Your task to perform on an android device: toggle improve location accuracy Image 0: 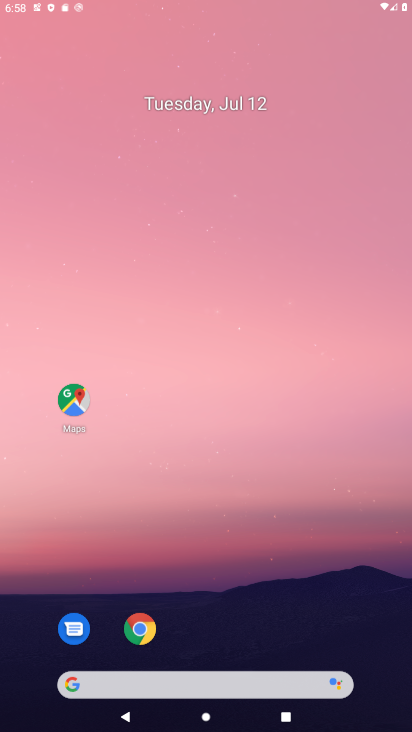
Step 0: drag from (274, 562) to (256, 185)
Your task to perform on an android device: toggle improve location accuracy Image 1: 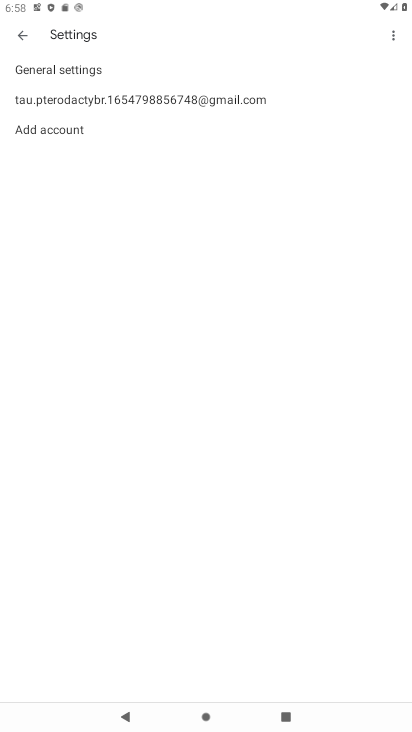
Step 1: press home button
Your task to perform on an android device: toggle improve location accuracy Image 2: 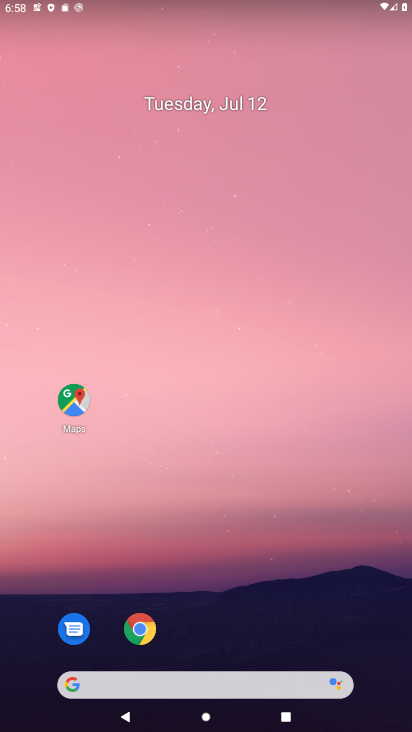
Step 2: drag from (247, 673) to (203, 101)
Your task to perform on an android device: toggle improve location accuracy Image 3: 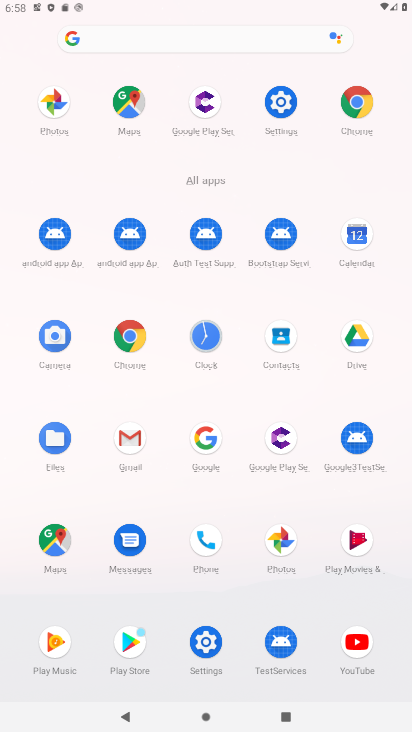
Step 3: click (285, 97)
Your task to perform on an android device: toggle improve location accuracy Image 4: 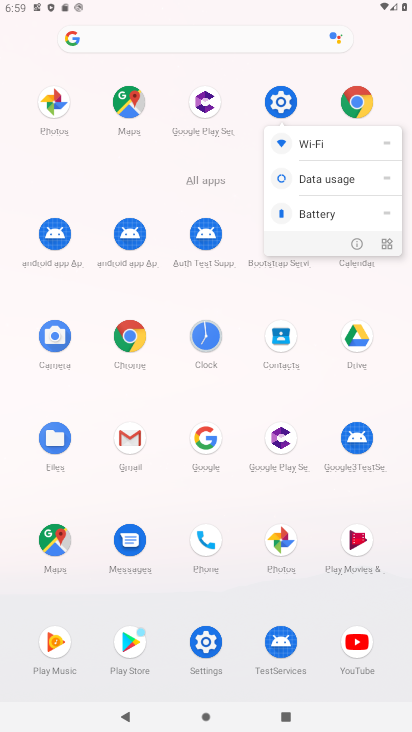
Step 4: click (263, 114)
Your task to perform on an android device: toggle improve location accuracy Image 5: 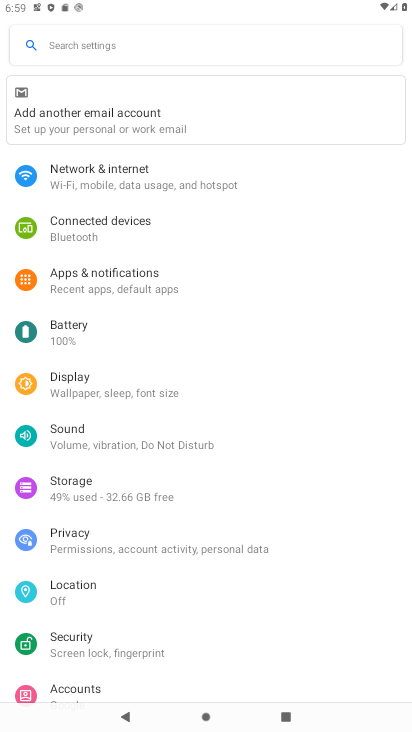
Step 5: click (98, 599)
Your task to perform on an android device: toggle improve location accuracy Image 6: 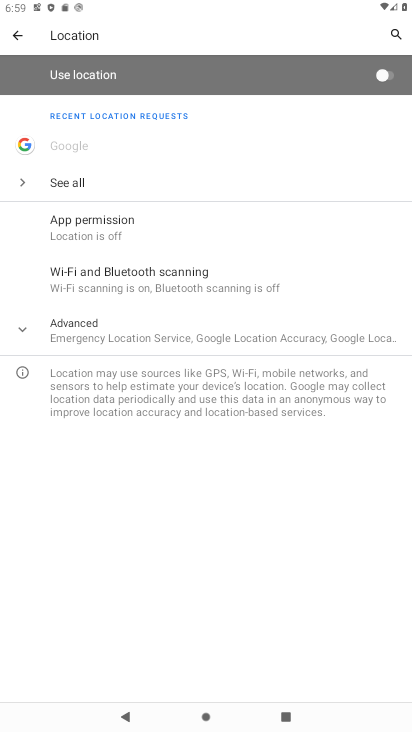
Step 6: click (66, 334)
Your task to perform on an android device: toggle improve location accuracy Image 7: 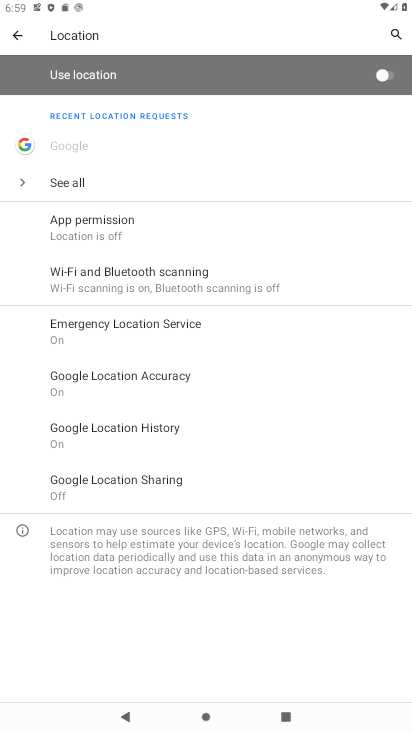
Step 7: click (118, 387)
Your task to perform on an android device: toggle improve location accuracy Image 8: 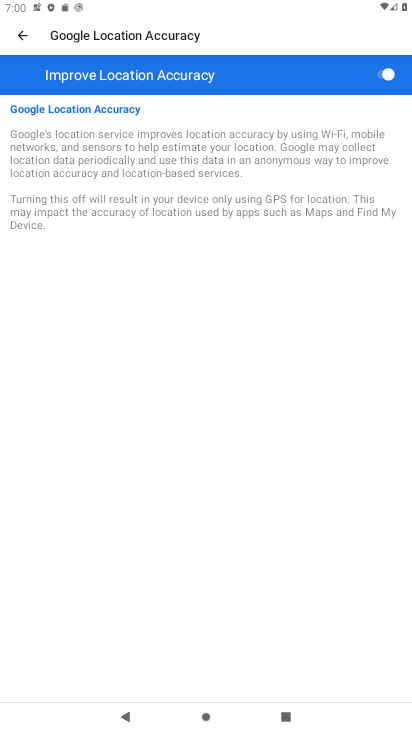
Step 8: task complete